Your task to perform on an android device: set an alarm Image 0: 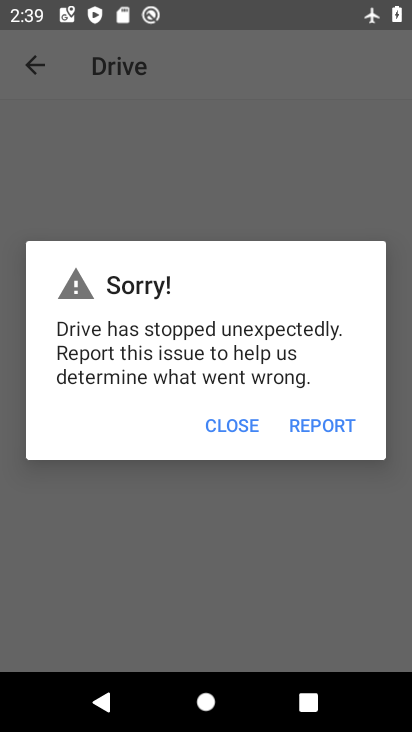
Step 0: press home button
Your task to perform on an android device: set an alarm Image 1: 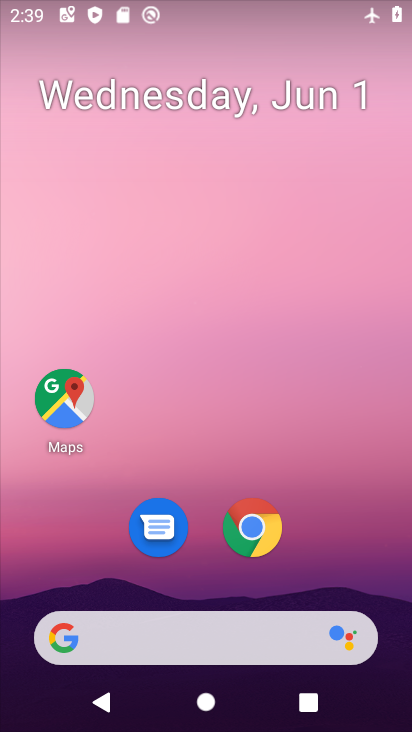
Step 1: drag from (320, 555) to (297, 107)
Your task to perform on an android device: set an alarm Image 2: 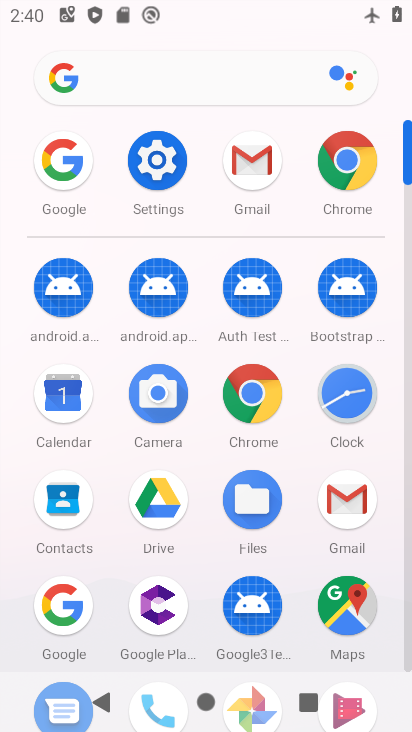
Step 2: click (348, 393)
Your task to perform on an android device: set an alarm Image 3: 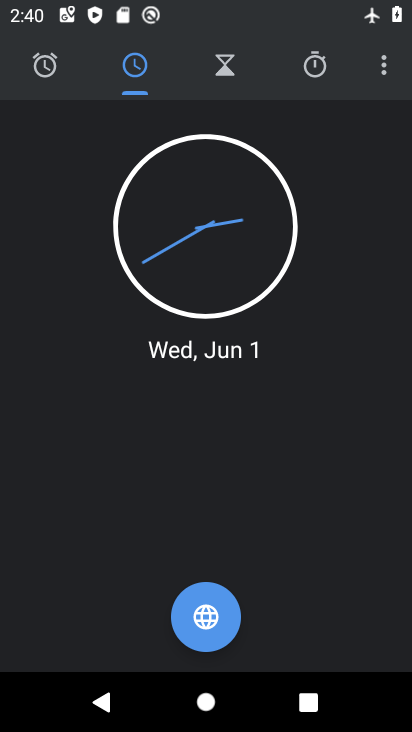
Step 3: click (43, 66)
Your task to perform on an android device: set an alarm Image 4: 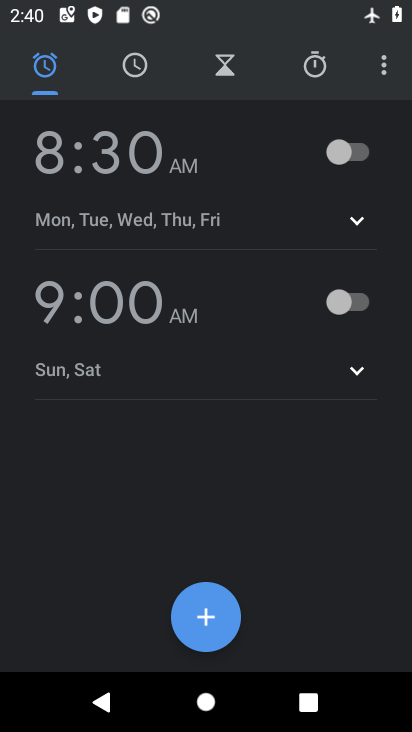
Step 4: click (208, 618)
Your task to perform on an android device: set an alarm Image 5: 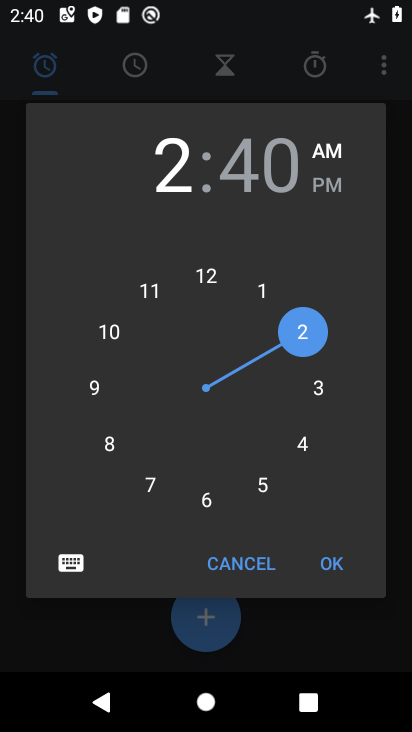
Step 5: click (111, 341)
Your task to perform on an android device: set an alarm Image 6: 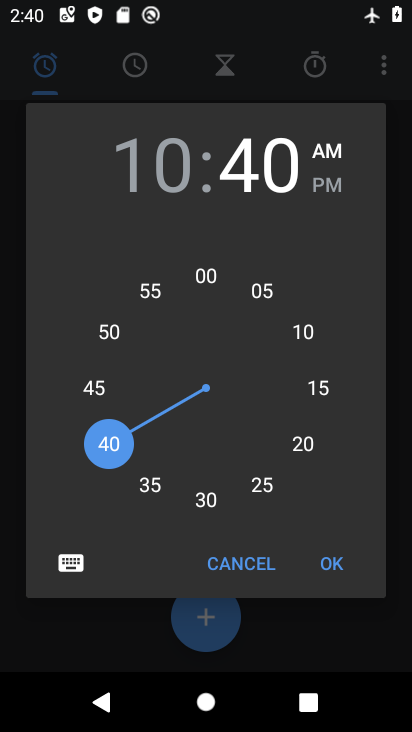
Step 6: click (206, 276)
Your task to perform on an android device: set an alarm Image 7: 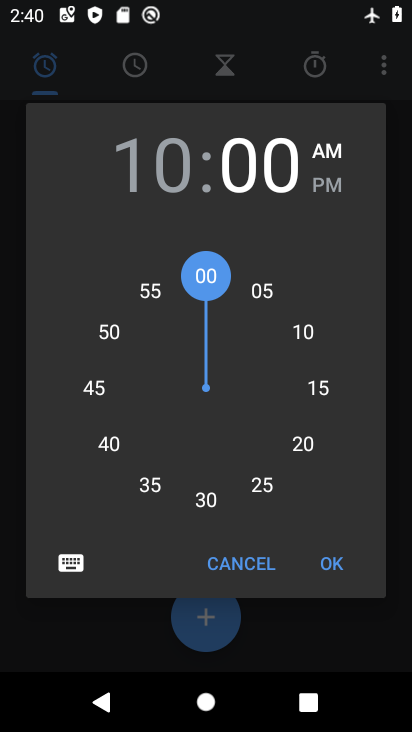
Step 7: click (330, 176)
Your task to perform on an android device: set an alarm Image 8: 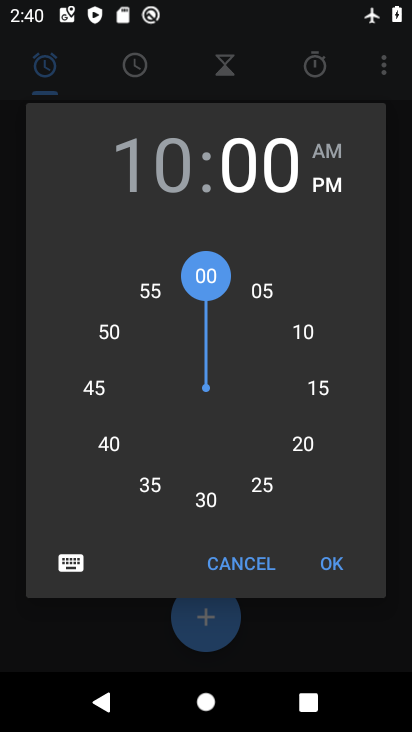
Step 8: click (327, 562)
Your task to perform on an android device: set an alarm Image 9: 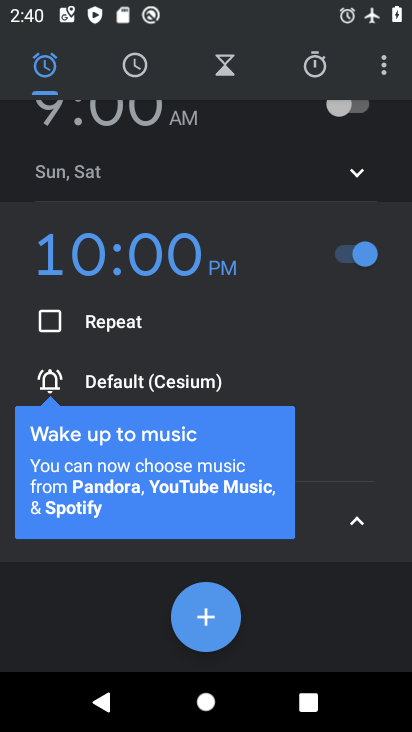
Step 9: click (356, 526)
Your task to perform on an android device: set an alarm Image 10: 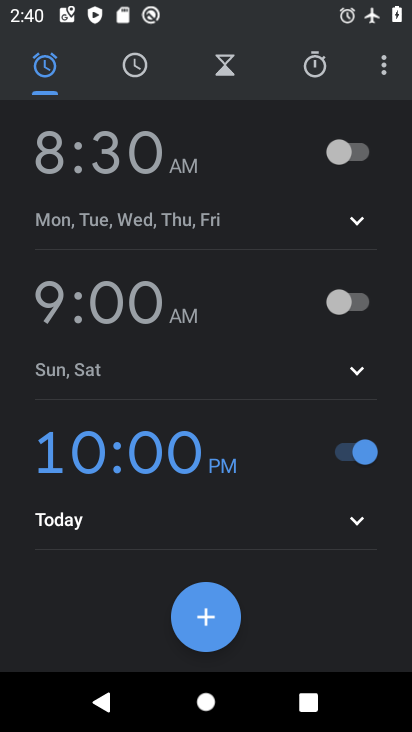
Step 10: task complete